Your task to perform on an android device: toggle pop-ups in chrome Image 0: 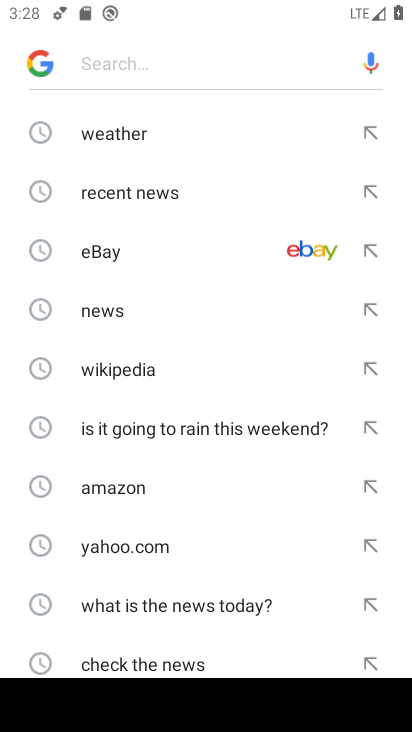
Step 0: press home button
Your task to perform on an android device: toggle pop-ups in chrome Image 1: 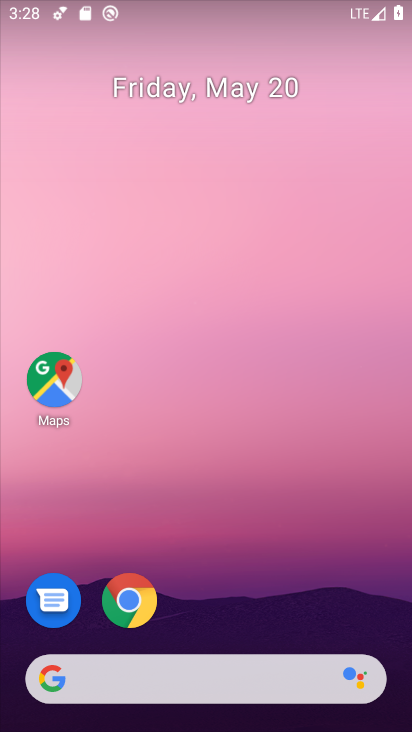
Step 1: drag from (385, 638) to (367, 115)
Your task to perform on an android device: toggle pop-ups in chrome Image 2: 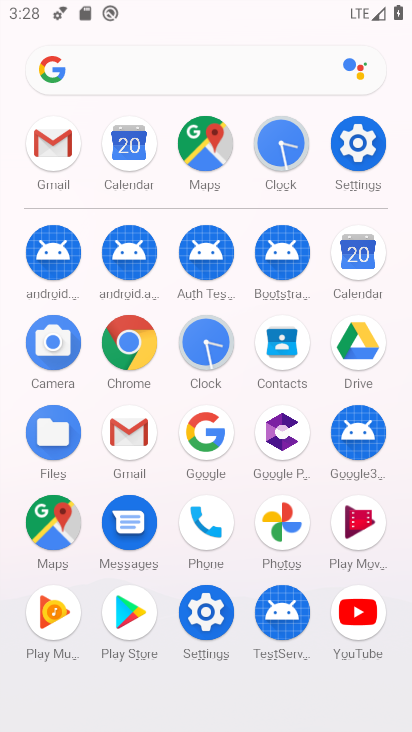
Step 2: click (136, 357)
Your task to perform on an android device: toggle pop-ups in chrome Image 3: 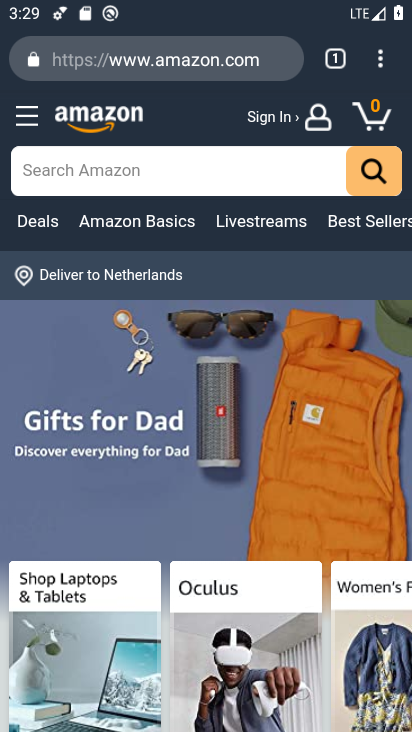
Step 3: click (378, 68)
Your task to perform on an android device: toggle pop-ups in chrome Image 4: 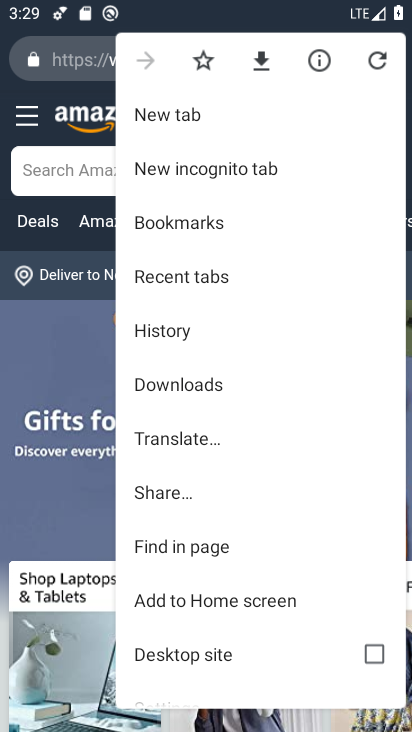
Step 4: drag from (300, 564) to (309, 421)
Your task to perform on an android device: toggle pop-ups in chrome Image 5: 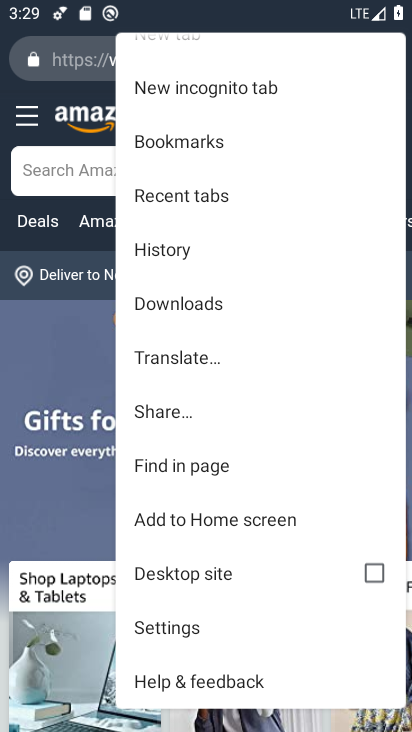
Step 5: click (198, 626)
Your task to perform on an android device: toggle pop-ups in chrome Image 6: 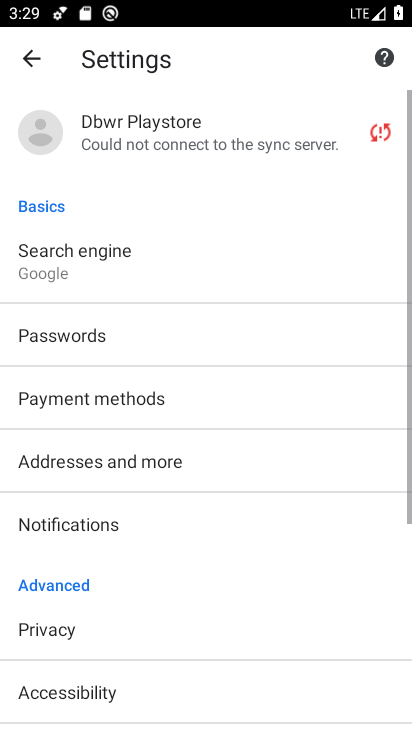
Step 6: drag from (262, 599) to (270, 501)
Your task to perform on an android device: toggle pop-ups in chrome Image 7: 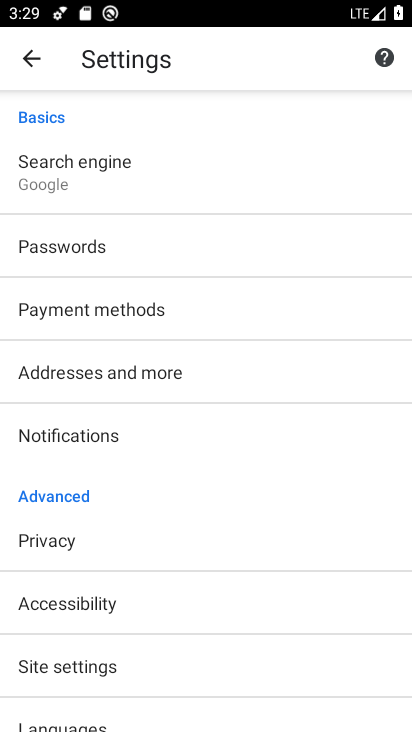
Step 7: drag from (285, 650) to (283, 539)
Your task to perform on an android device: toggle pop-ups in chrome Image 8: 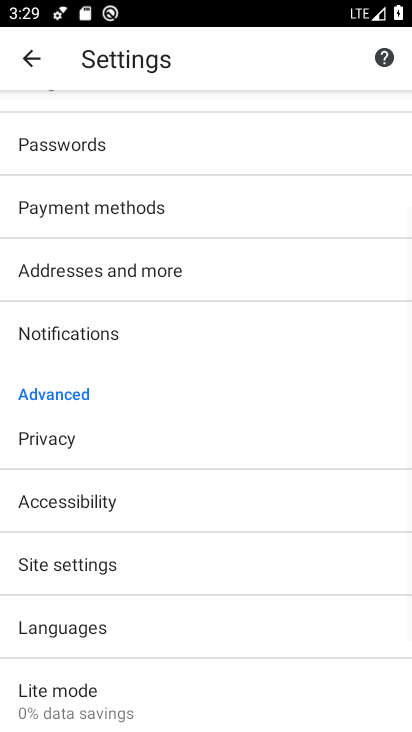
Step 8: drag from (263, 663) to (270, 570)
Your task to perform on an android device: toggle pop-ups in chrome Image 9: 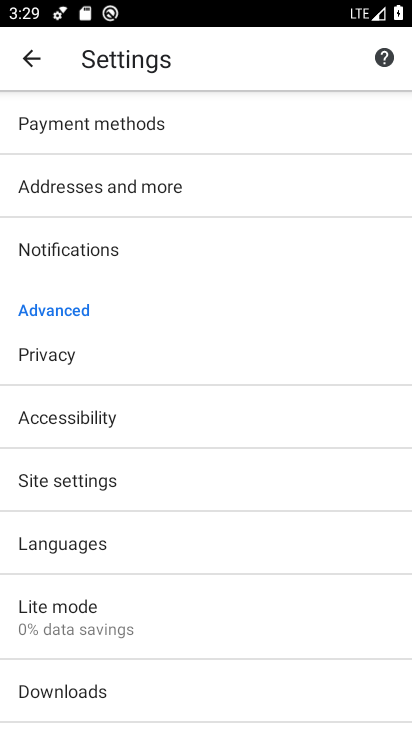
Step 9: drag from (303, 630) to (304, 570)
Your task to perform on an android device: toggle pop-ups in chrome Image 10: 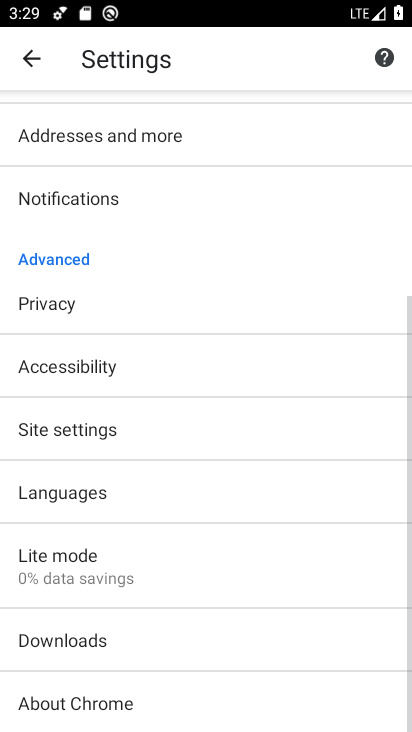
Step 10: drag from (290, 678) to (289, 584)
Your task to perform on an android device: toggle pop-ups in chrome Image 11: 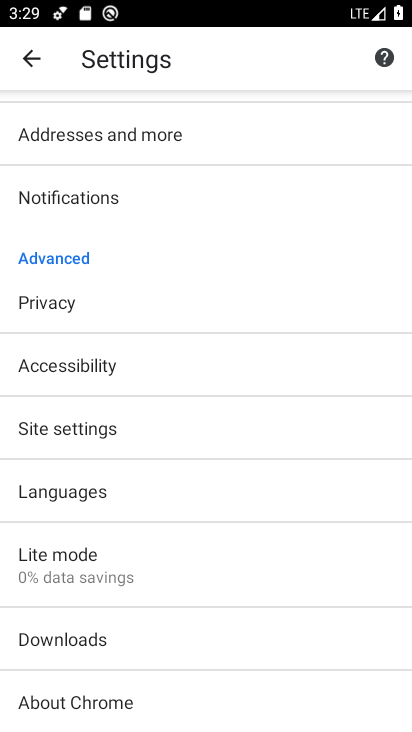
Step 11: drag from (283, 482) to (274, 577)
Your task to perform on an android device: toggle pop-ups in chrome Image 12: 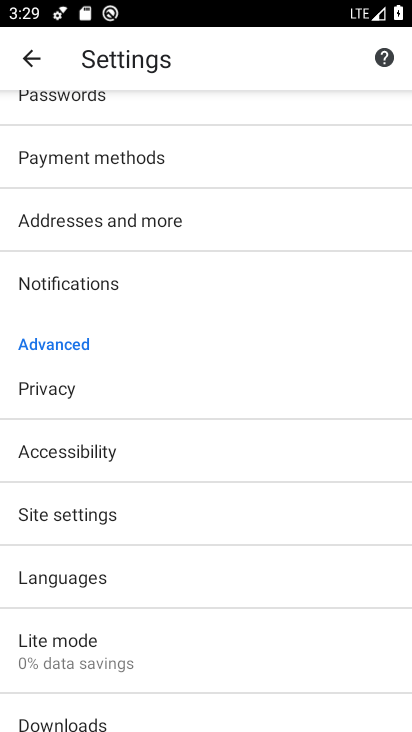
Step 12: drag from (214, 362) to (216, 531)
Your task to perform on an android device: toggle pop-ups in chrome Image 13: 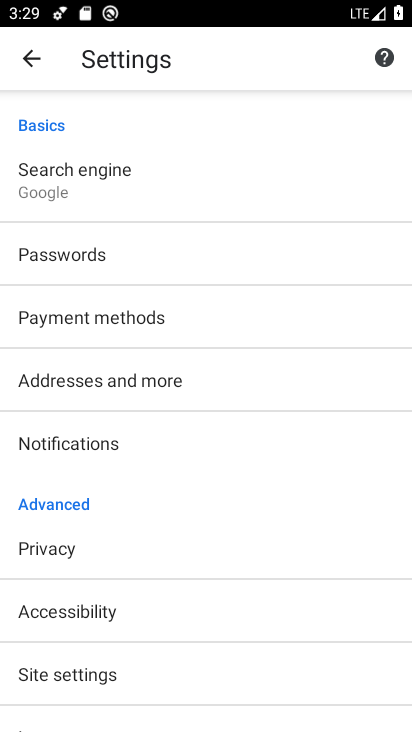
Step 13: drag from (229, 324) to (240, 521)
Your task to perform on an android device: toggle pop-ups in chrome Image 14: 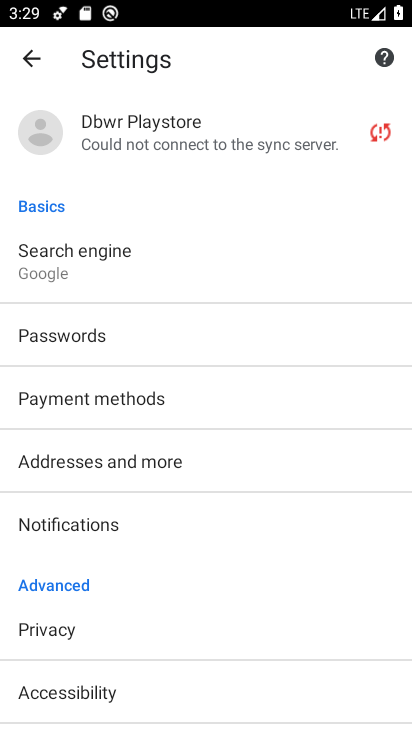
Step 14: drag from (226, 294) to (252, 501)
Your task to perform on an android device: toggle pop-ups in chrome Image 15: 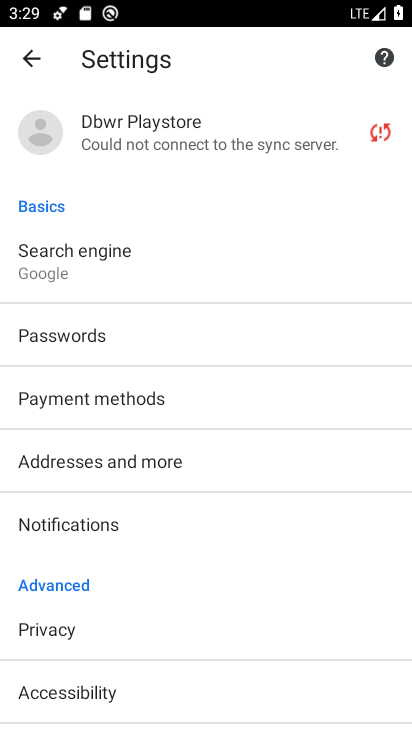
Step 15: drag from (247, 550) to (247, 389)
Your task to perform on an android device: toggle pop-ups in chrome Image 16: 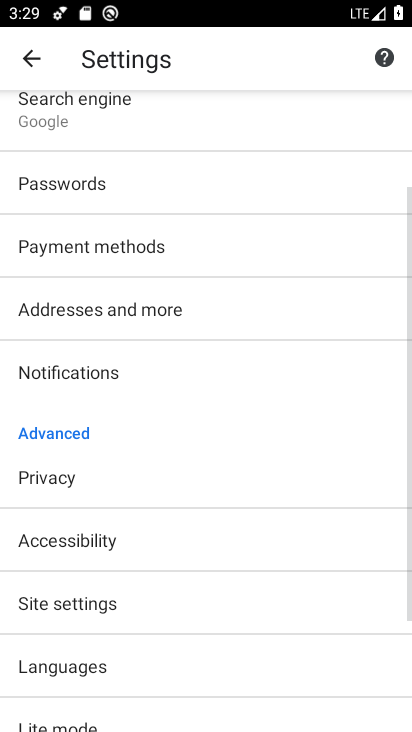
Step 16: drag from (243, 617) to (243, 508)
Your task to perform on an android device: toggle pop-ups in chrome Image 17: 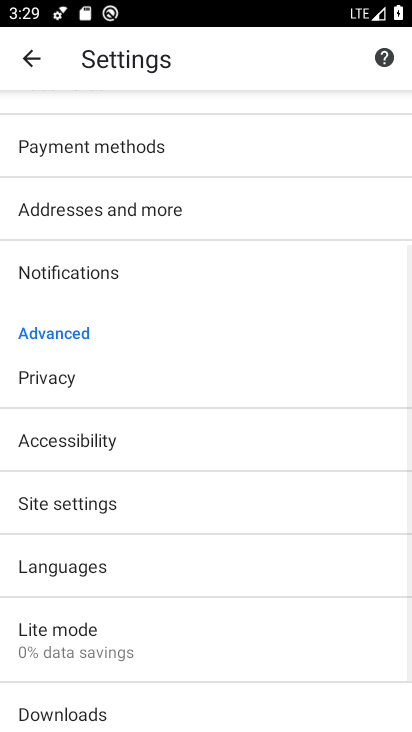
Step 17: click (238, 525)
Your task to perform on an android device: toggle pop-ups in chrome Image 18: 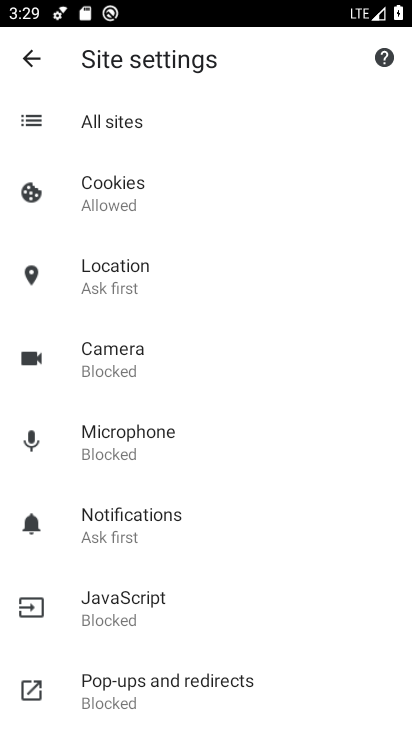
Step 18: drag from (247, 345) to (264, 469)
Your task to perform on an android device: toggle pop-ups in chrome Image 19: 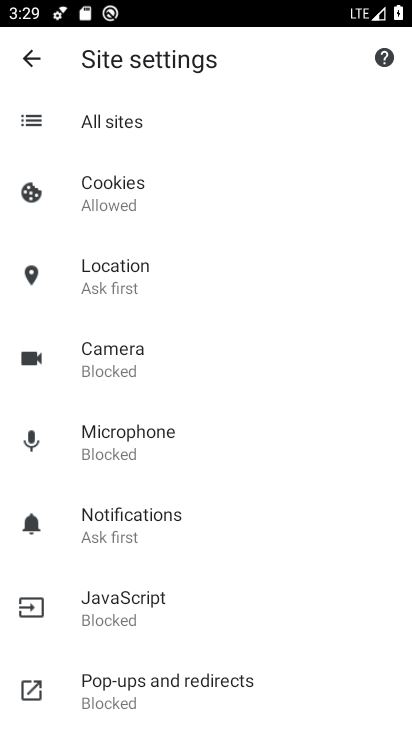
Step 19: drag from (284, 567) to (283, 392)
Your task to perform on an android device: toggle pop-ups in chrome Image 20: 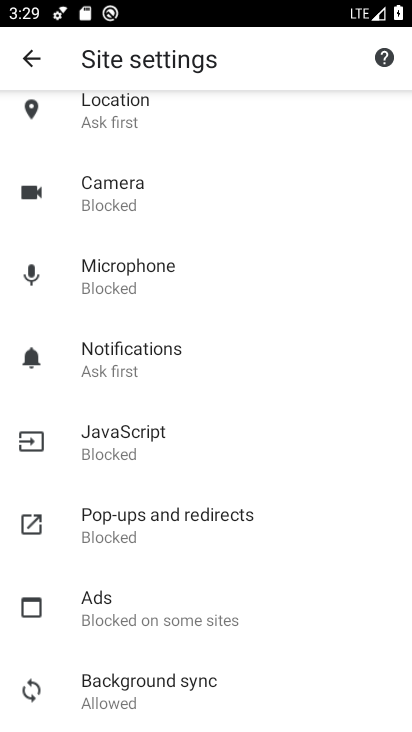
Step 20: drag from (289, 597) to (290, 431)
Your task to perform on an android device: toggle pop-ups in chrome Image 21: 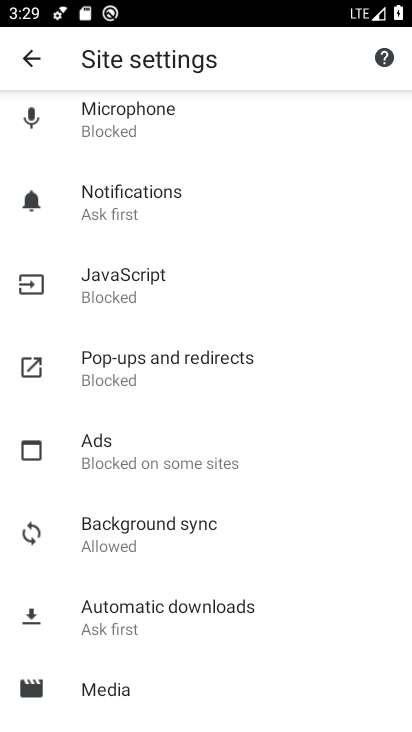
Step 21: click (202, 383)
Your task to perform on an android device: toggle pop-ups in chrome Image 22: 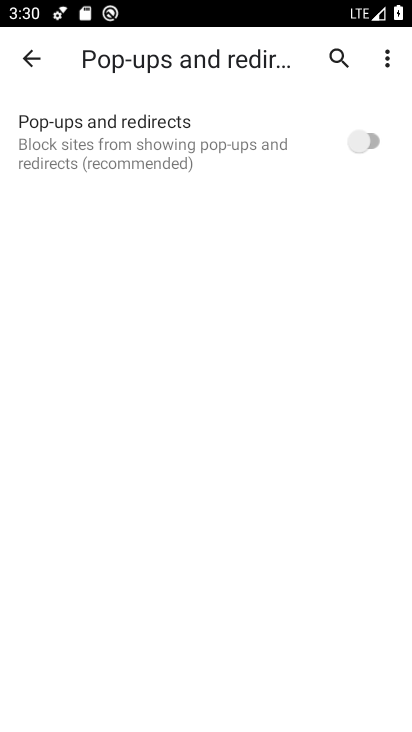
Step 22: click (360, 146)
Your task to perform on an android device: toggle pop-ups in chrome Image 23: 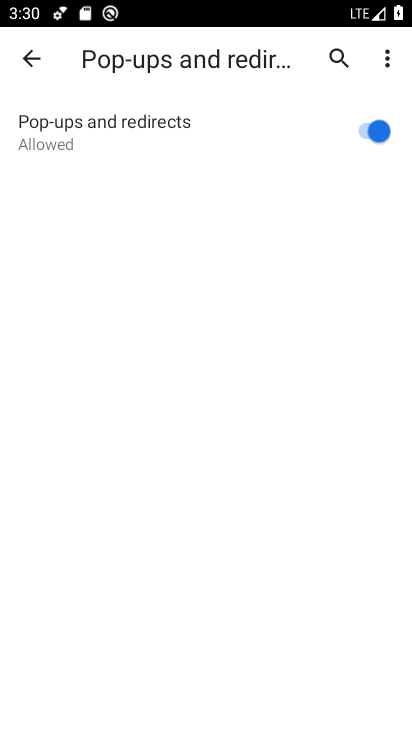
Step 23: task complete